Your task to perform on an android device: Go to Amazon Image 0: 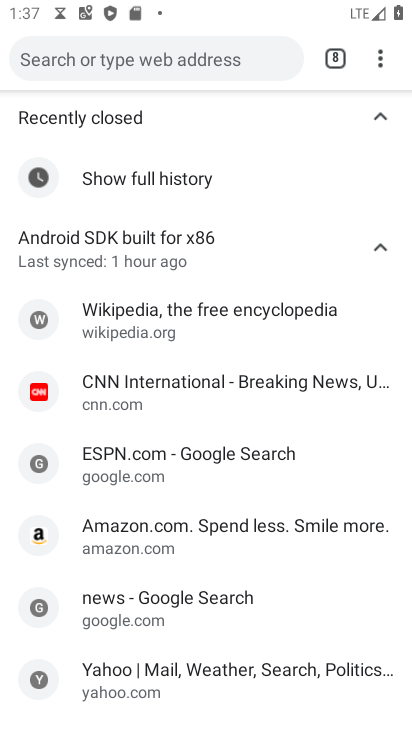
Step 0: click (340, 52)
Your task to perform on an android device: Go to Amazon Image 1: 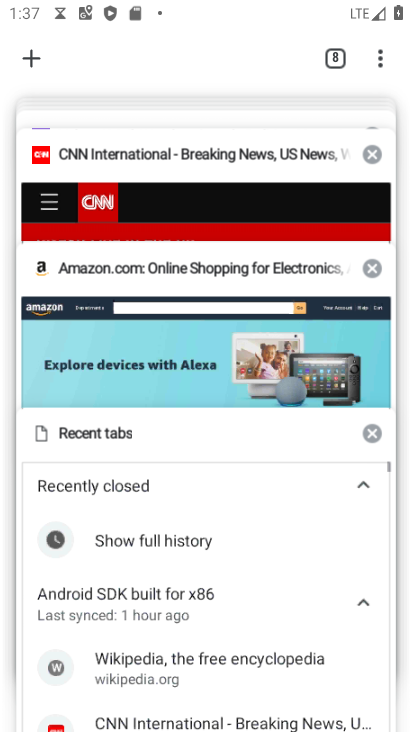
Step 1: drag from (184, 220) to (212, 682)
Your task to perform on an android device: Go to Amazon Image 2: 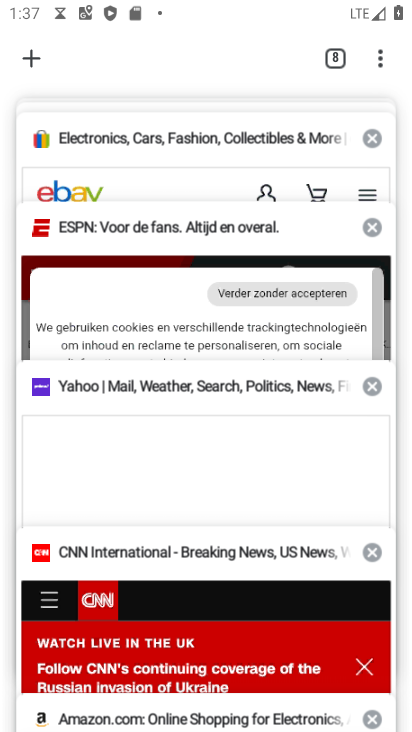
Step 2: click (180, 715)
Your task to perform on an android device: Go to Amazon Image 3: 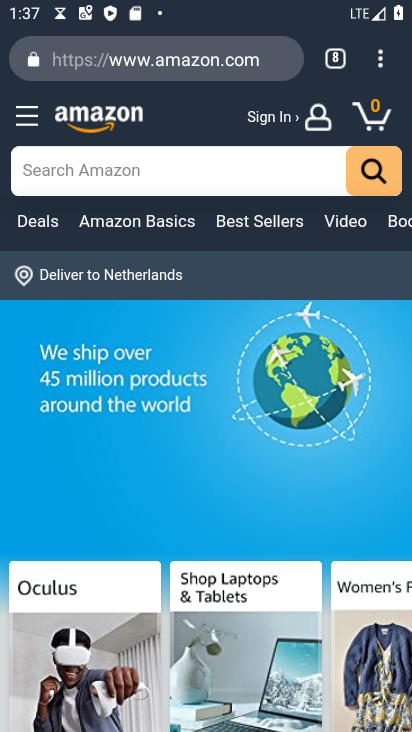
Step 3: task complete